Your task to perform on an android device: stop showing notifications on the lock screen Image 0: 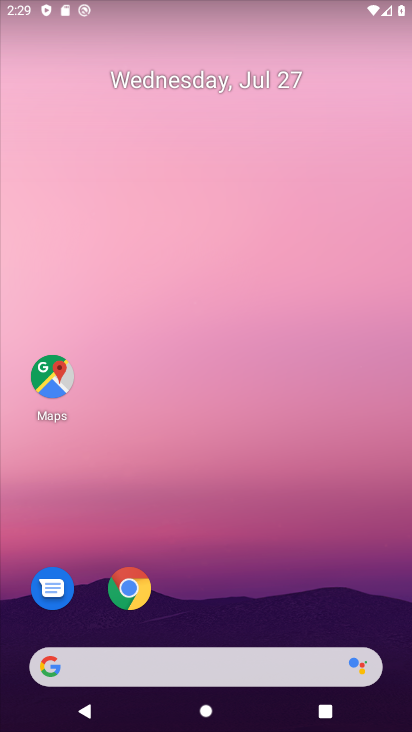
Step 0: drag from (325, 627) to (247, 317)
Your task to perform on an android device: stop showing notifications on the lock screen Image 1: 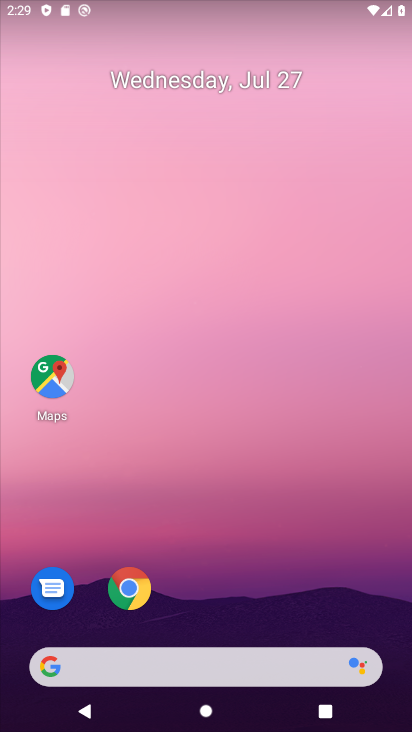
Step 1: drag from (192, 390) to (174, 320)
Your task to perform on an android device: stop showing notifications on the lock screen Image 2: 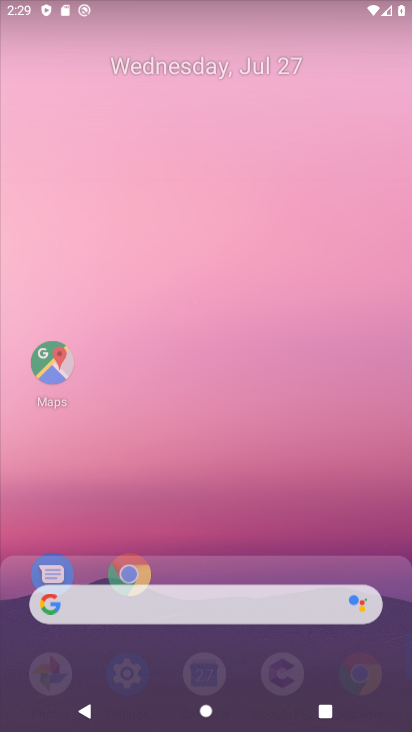
Step 2: drag from (238, 380) to (154, 206)
Your task to perform on an android device: stop showing notifications on the lock screen Image 3: 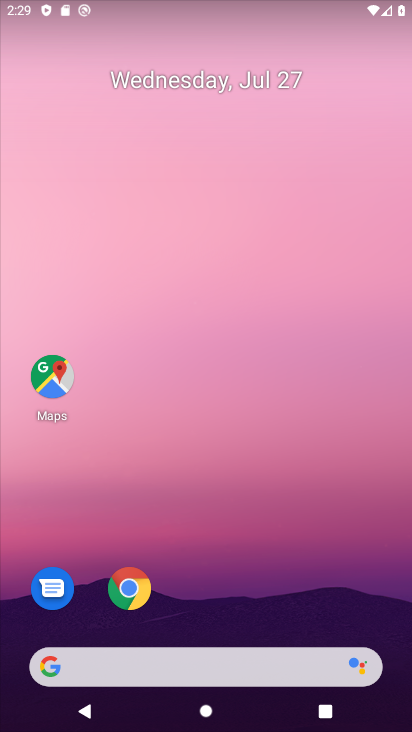
Step 3: drag from (165, 377) to (141, 172)
Your task to perform on an android device: stop showing notifications on the lock screen Image 4: 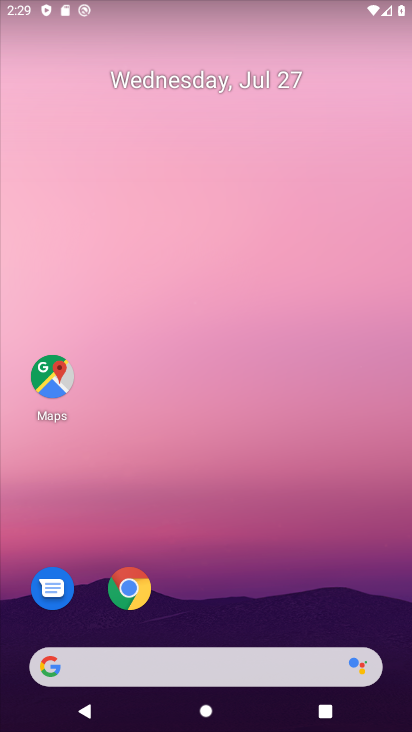
Step 4: drag from (210, 248) to (189, 132)
Your task to perform on an android device: stop showing notifications on the lock screen Image 5: 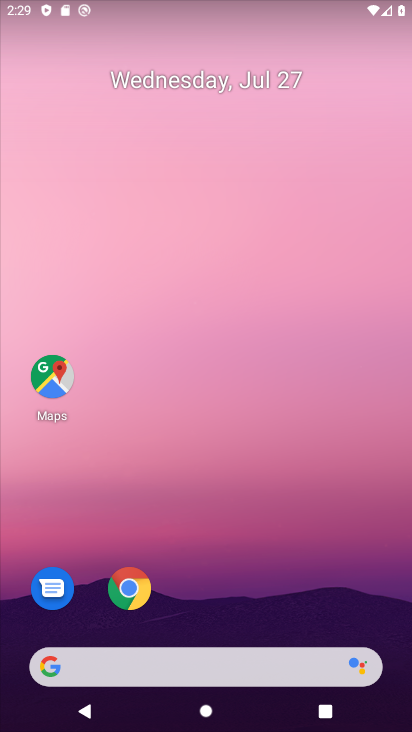
Step 5: drag from (242, 450) to (195, 199)
Your task to perform on an android device: stop showing notifications on the lock screen Image 6: 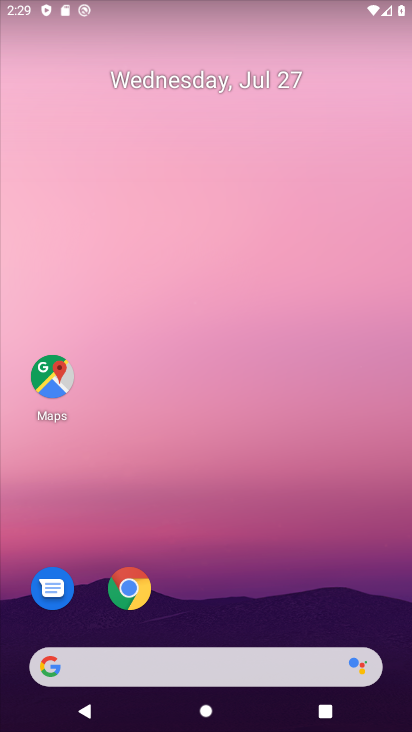
Step 6: drag from (243, 464) to (158, 123)
Your task to perform on an android device: stop showing notifications on the lock screen Image 7: 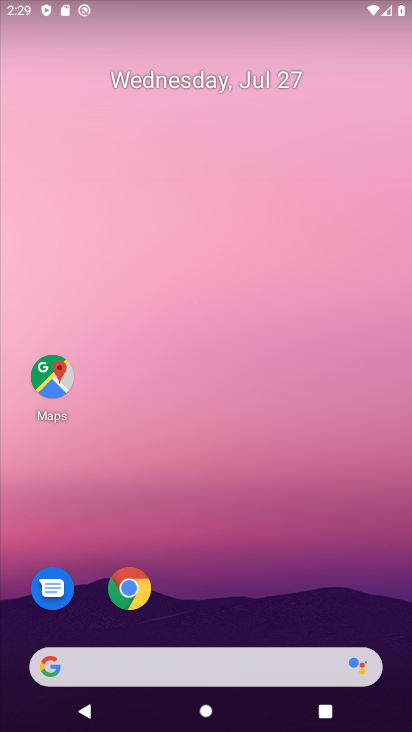
Step 7: drag from (221, 508) to (143, 84)
Your task to perform on an android device: stop showing notifications on the lock screen Image 8: 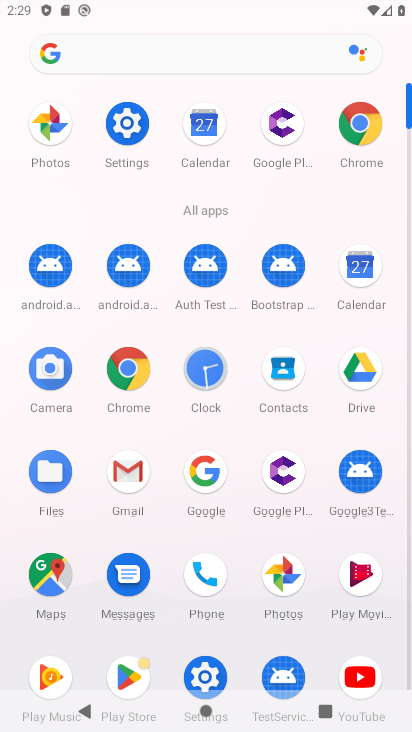
Step 8: drag from (228, 501) to (196, 130)
Your task to perform on an android device: stop showing notifications on the lock screen Image 9: 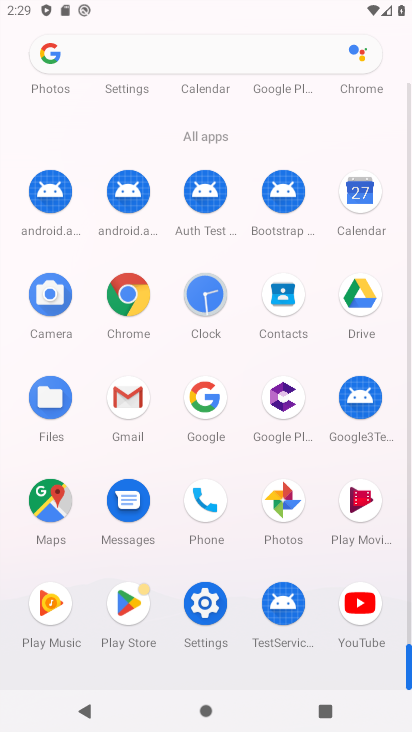
Step 9: drag from (261, 340) to (256, 302)
Your task to perform on an android device: stop showing notifications on the lock screen Image 10: 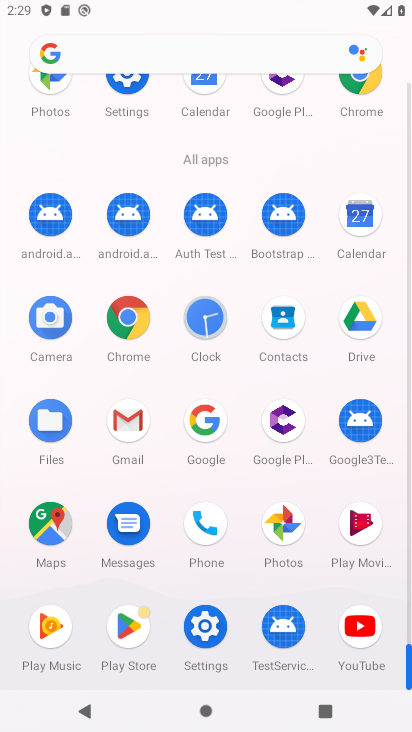
Step 10: click (205, 613)
Your task to perform on an android device: stop showing notifications on the lock screen Image 11: 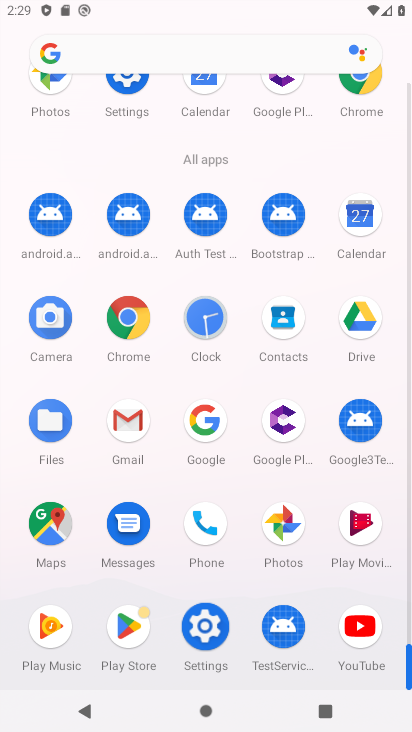
Step 11: click (210, 616)
Your task to perform on an android device: stop showing notifications on the lock screen Image 12: 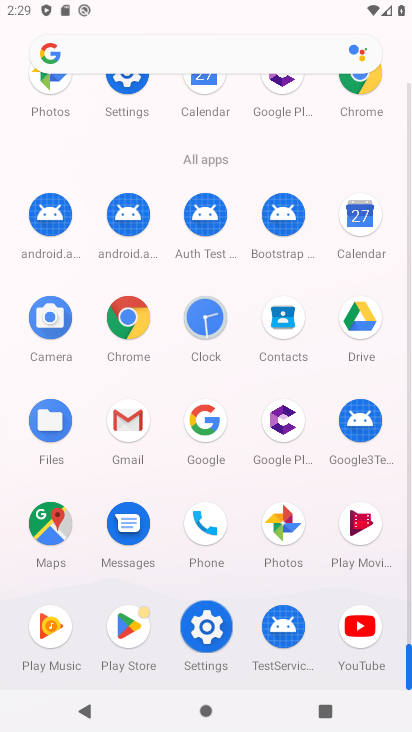
Step 12: click (214, 622)
Your task to perform on an android device: stop showing notifications on the lock screen Image 13: 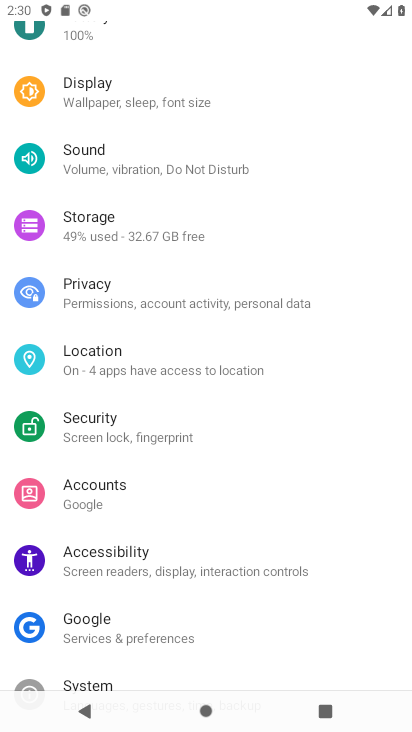
Step 13: drag from (98, 135) to (180, 595)
Your task to perform on an android device: stop showing notifications on the lock screen Image 14: 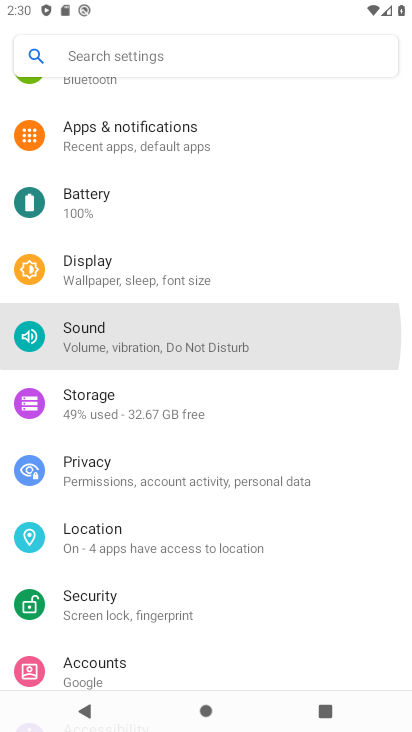
Step 14: drag from (131, 145) to (154, 528)
Your task to perform on an android device: stop showing notifications on the lock screen Image 15: 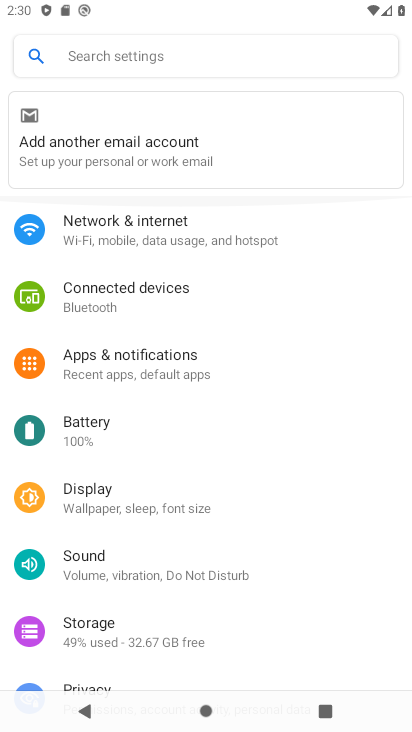
Step 15: drag from (61, 222) to (81, 443)
Your task to perform on an android device: stop showing notifications on the lock screen Image 16: 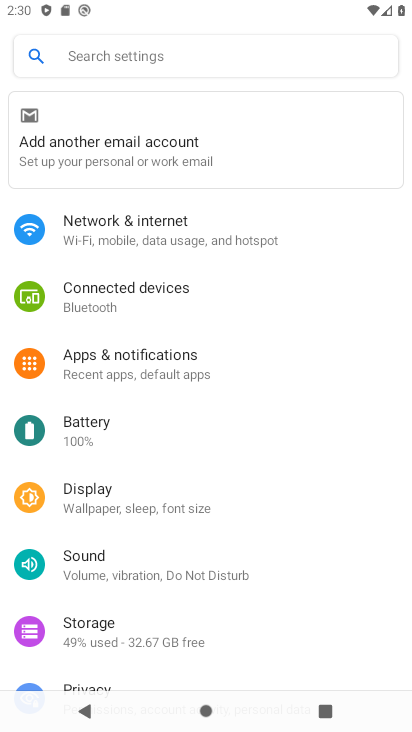
Step 16: click (134, 357)
Your task to perform on an android device: stop showing notifications on the lock screen Image 17: 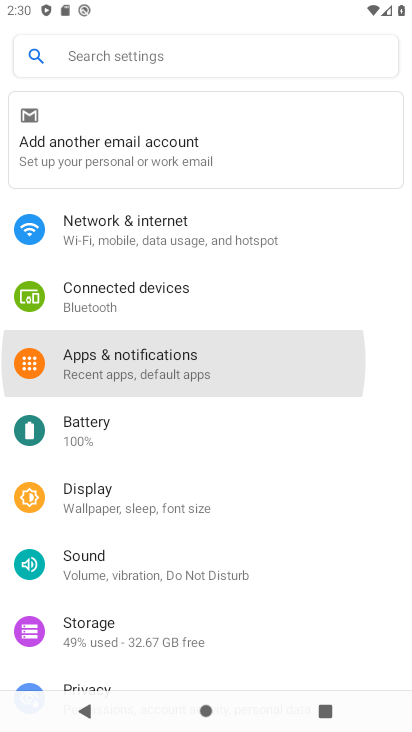
Step 17: click (134, 358)
Your task to perform on an android device: stop showing notifications on the lock screen Image 18: 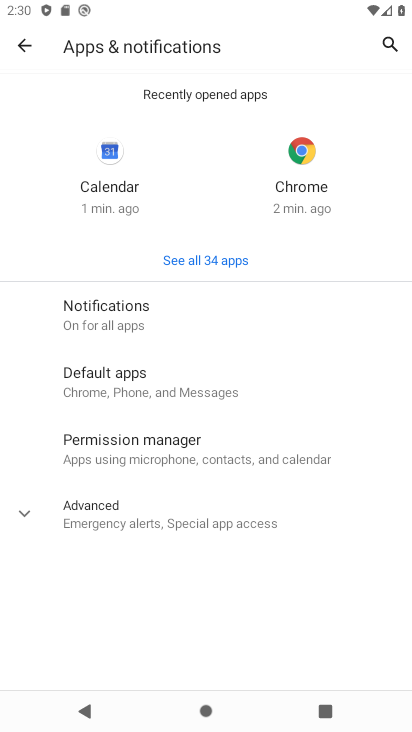
Step 18: click (102, 317)
Your task to perform on an android device: stop showing notifications on the lock screen Image 19: 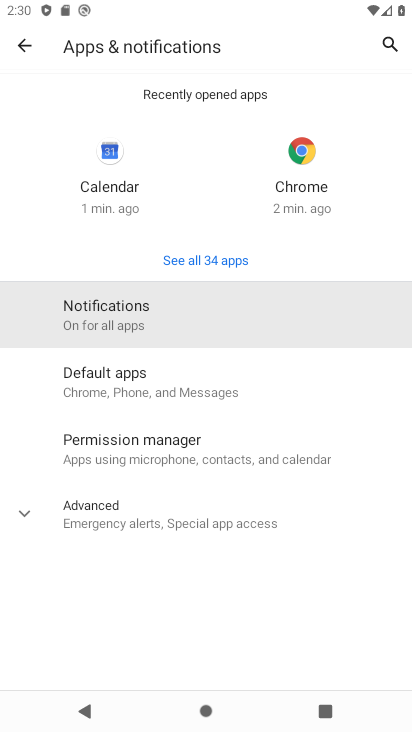
Step 19: click (102, 317)
Your task to perform on an android device: stop showing notifications on the lock screen Image 20: 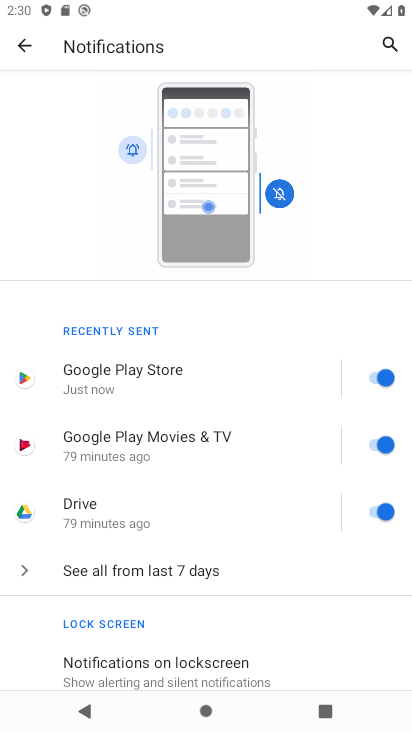
Step 20: click (138, 654)
Your task to perform on an android device: stop showing notifications on the lock screen Image 21: 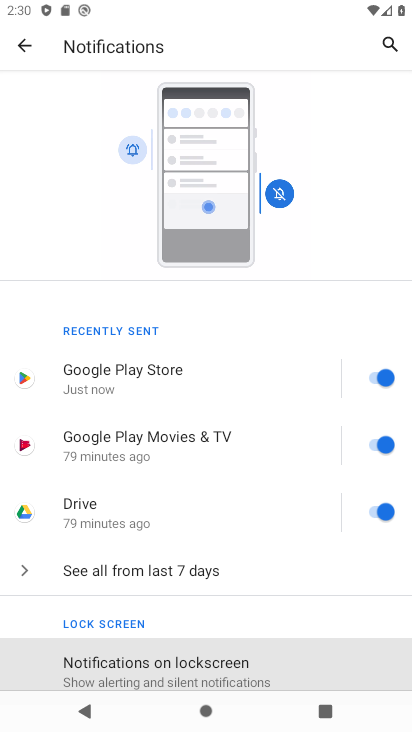
Step 21: click (138, 654)
Your task to perform on an android device: stop showing notifications on the lock screen Image 22: 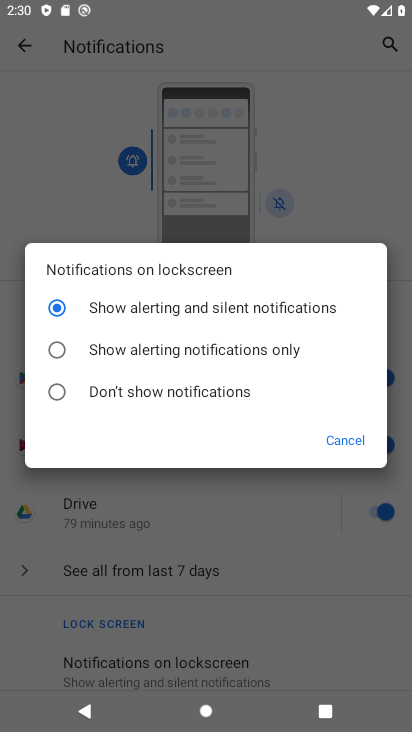
Step 22: click (54, 348)
Your task to perform on an android device: stop showing notifications on the lock screen Image 23: 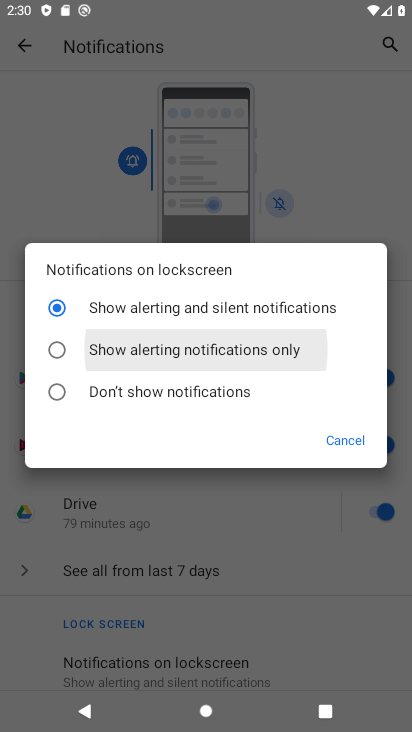
Step 23: click (53, 346)
Your task to perform on an android device: stop showing notifications on the lock screen Image 24: 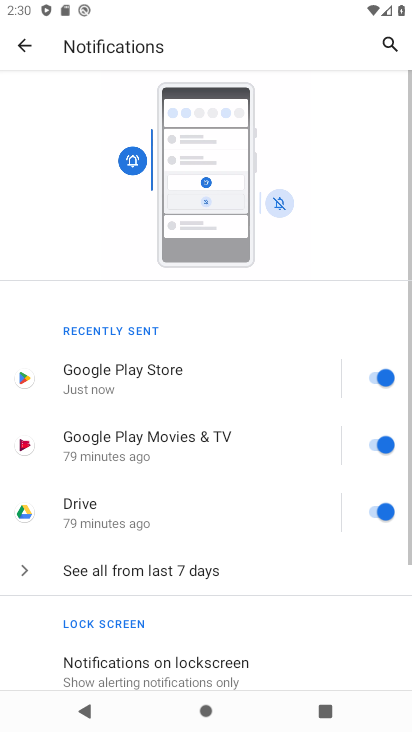
Step 24: task complete